Your task to perform on an android device: turn on location history Image 0: 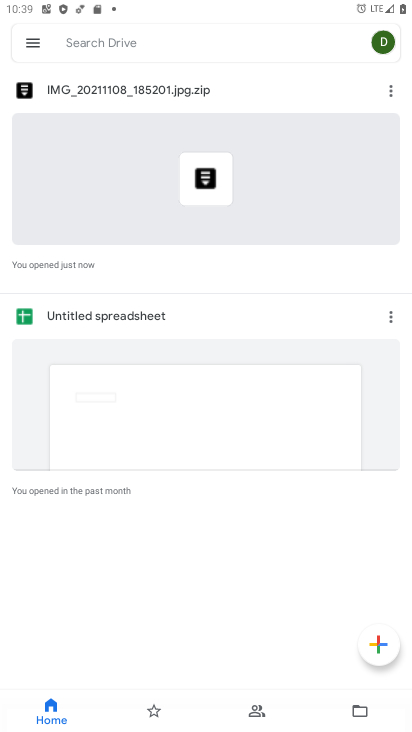
Step 0: press home button
Your task to perform on an android device: turn on location history Image 1: 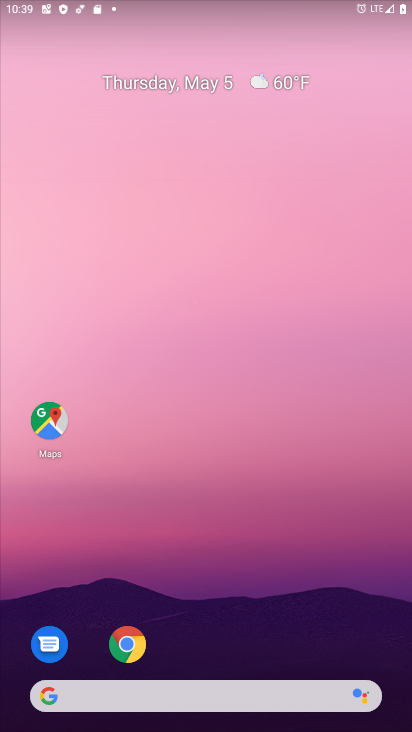
Step 1: drag from (272, 522) to (273, 138)
Your task to perform on an android device: turn on location history Image 2: 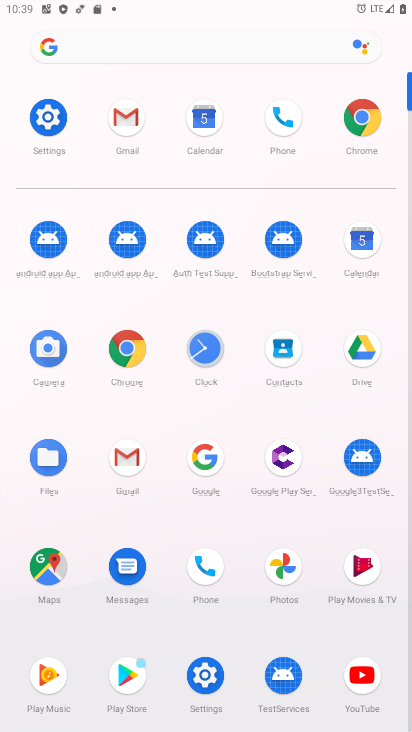
Step 2: click (199, 688)
Your task to perform on an android device: turn on location history Image 3: 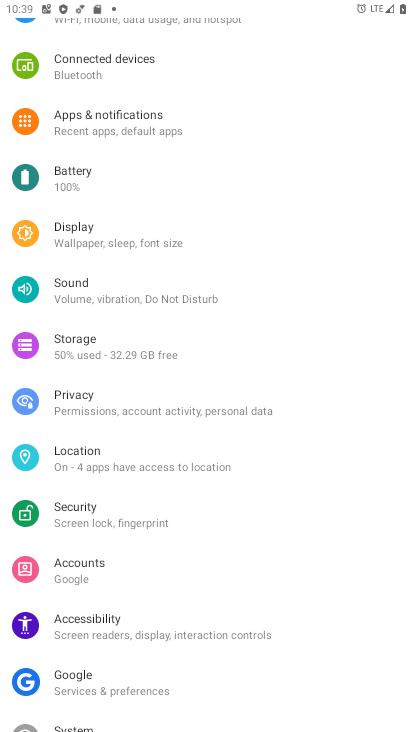
Step 3: drag from (260, 392) to (330, 292)
Your task to perform on an android device: turn on location history Image 4: 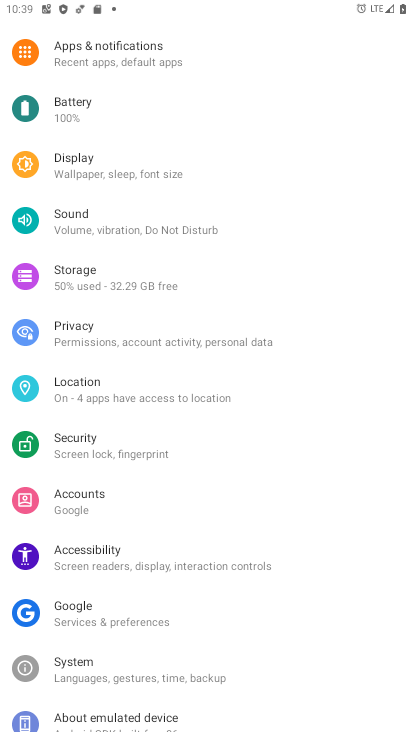
Step 4: click (97, 400)
Your task to perform on an android device: turn on location history Image 5: 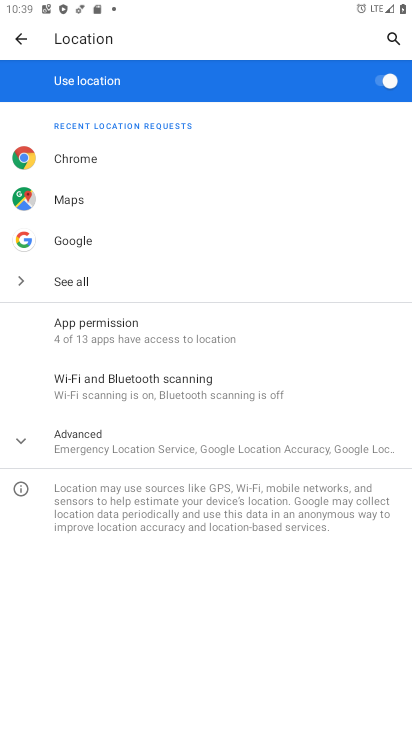
Step 5: click (15, 448)
Your task to perform on an android device: turn on location history Image 6: 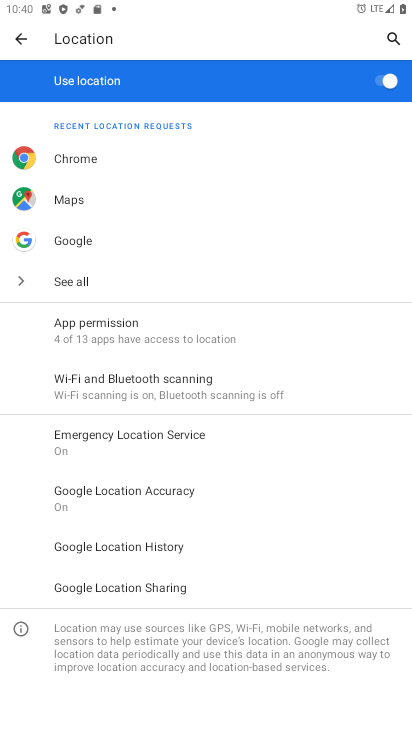
Step 6: click (161, 555)
Your task to perform on an android device: turn on location history Image 7: 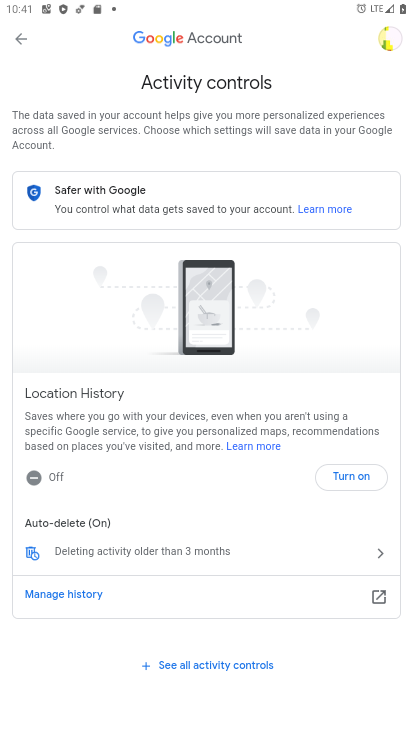
Step 7: click (92, 598)
Your task to perform on an android device: turn on location history Image 8: 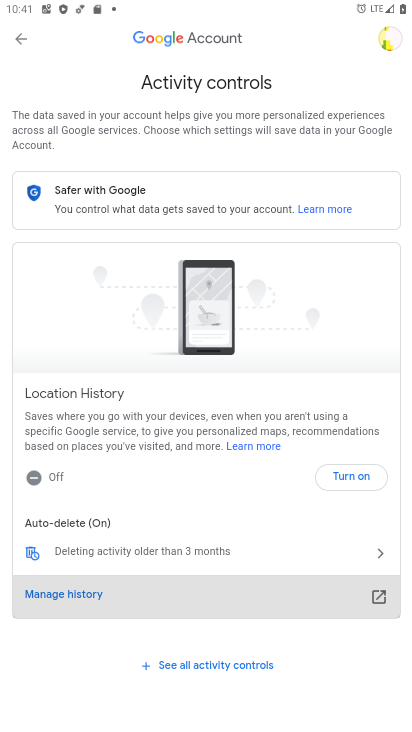
Step 8: click (366, 472)
Your task to perform on an android device: turn on location history Image 9: 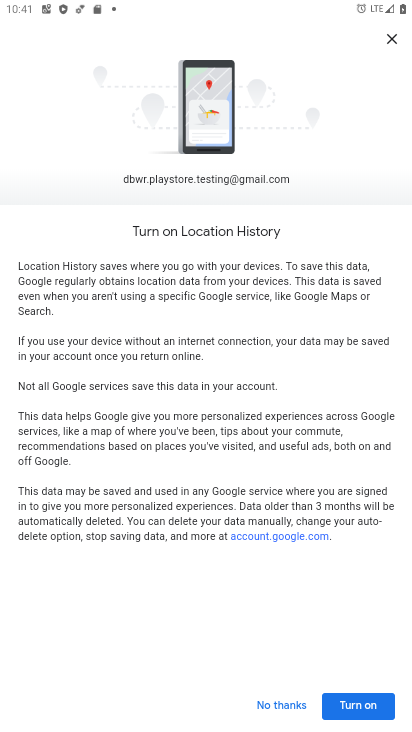
Step 9: click (364, 716)
Your task to perform on an android device: turn on location history Image 10: 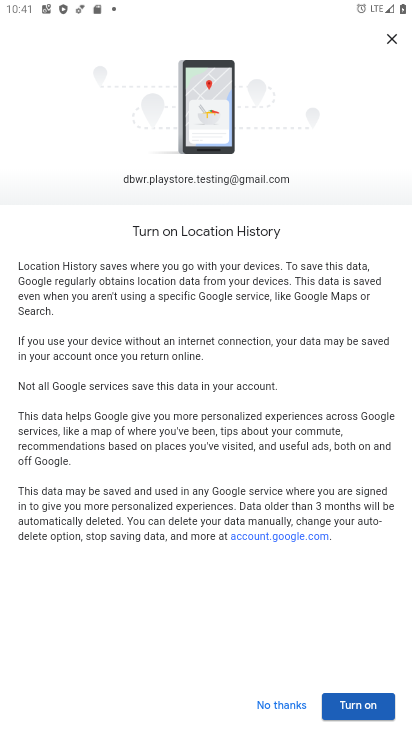
Step 10: click (371, 709)
Your task to perform on an android device: turn on location history Image 11: 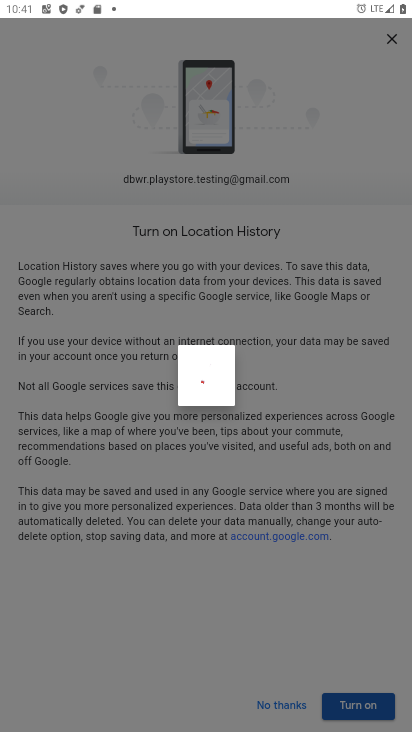
Step 11: click (348, 713)
Your task to perform on an android device: turn on location history Image 12: 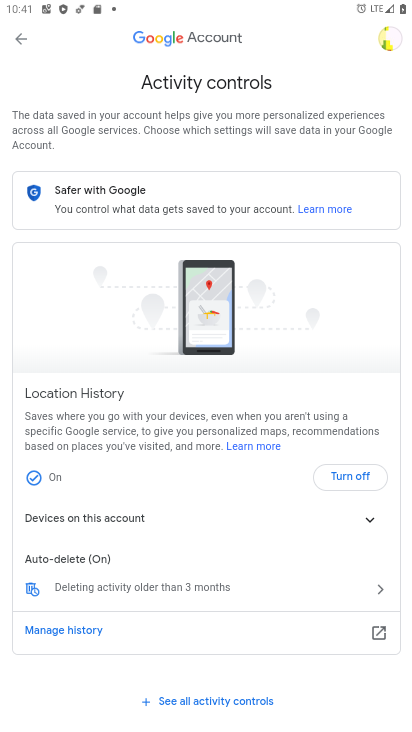
Step 12: task complete